Your task to perform on an android device: toggle show notifications on the lock screen Image 0: 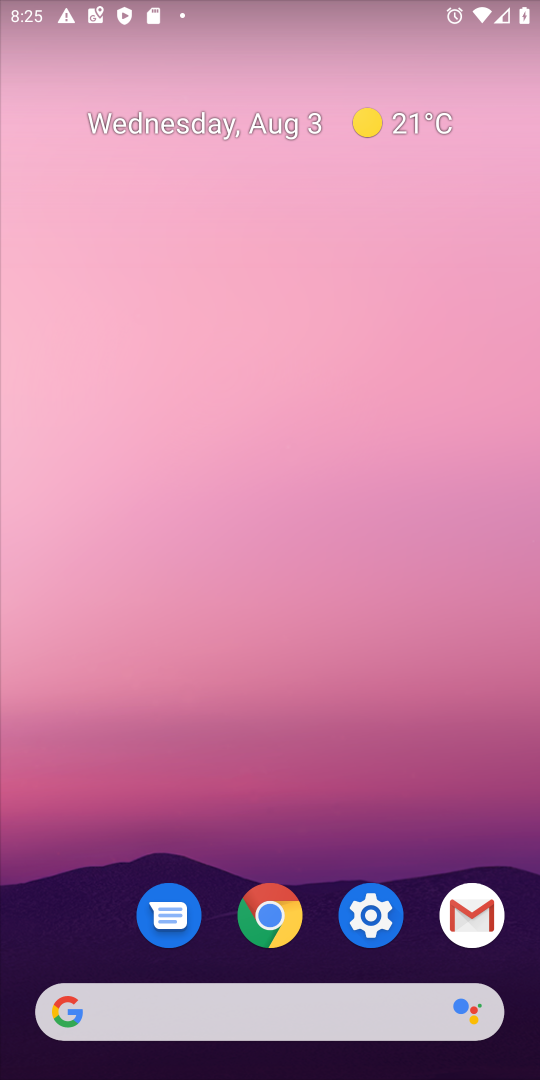
Step 0: press home button
Your task to perform on an android device: toggle show notifications on the lock screen Image 1: 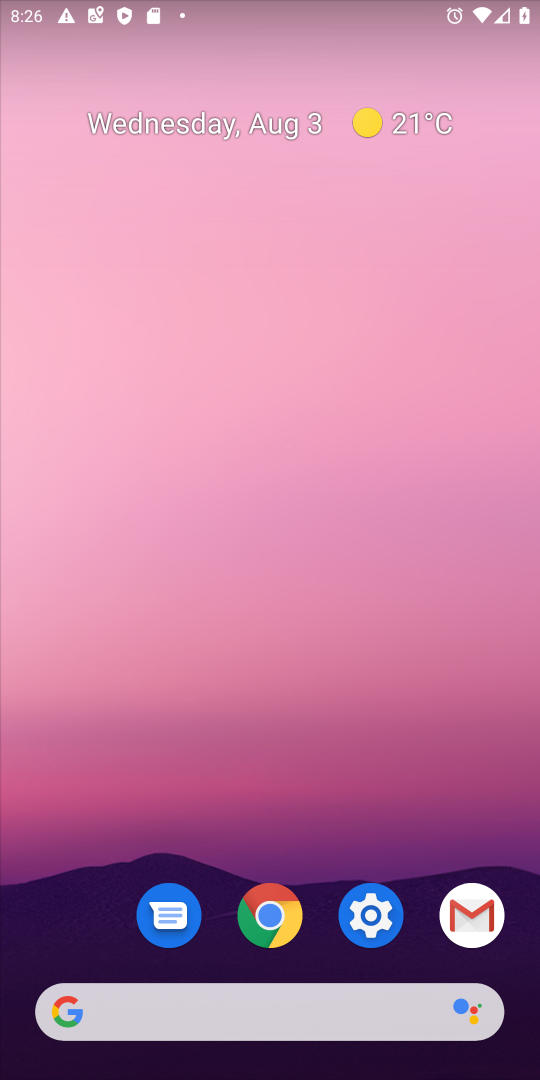
Step 1: drag from (358, 937) to (390, 246)
Your task to perform on an android device: toggle show notifications on the lock screen Image 2: 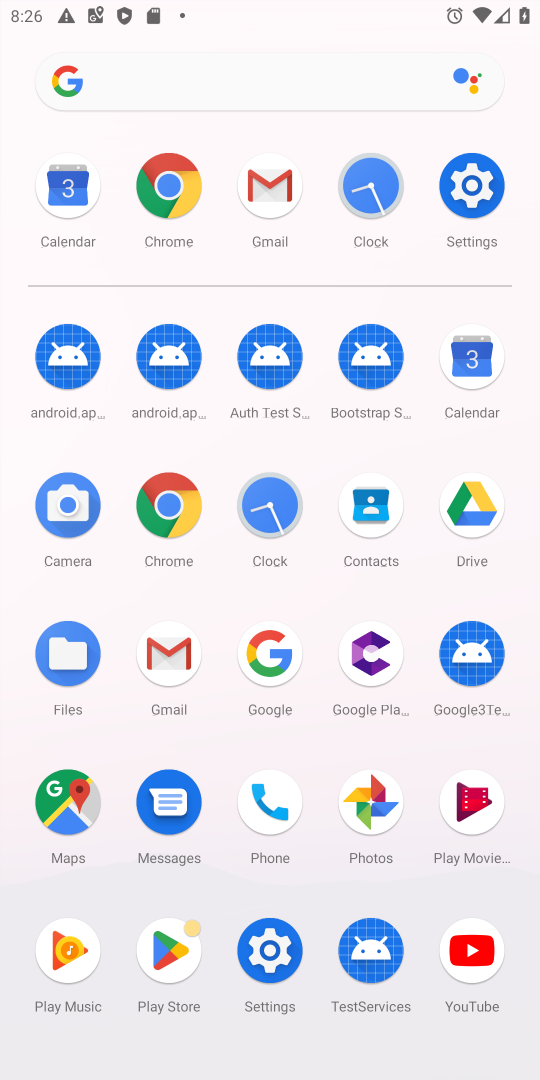
Step 2: click (487, 179)
Your task to perform on an android device: toggle show notifications on the lock screen Image 3: 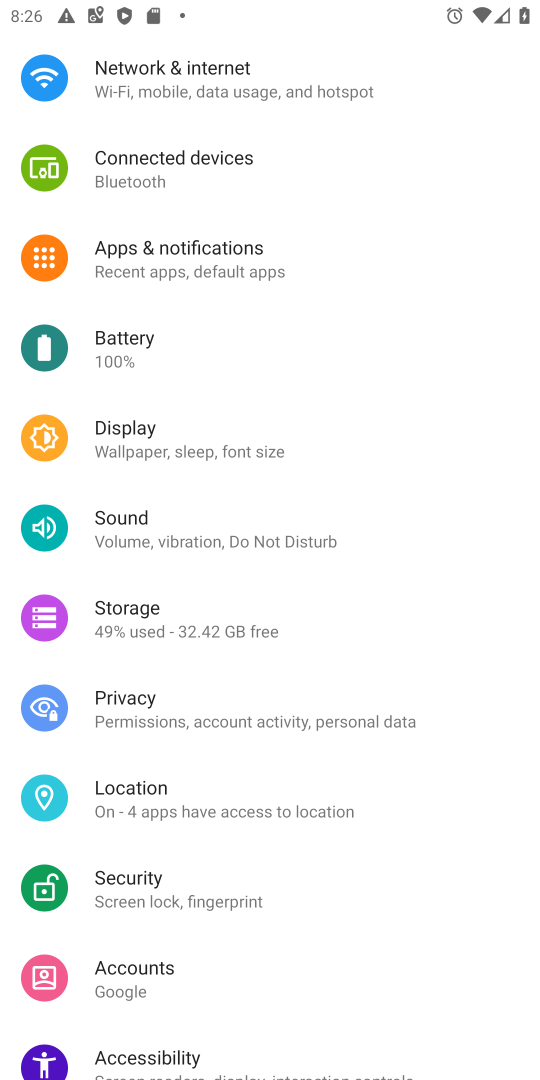
Step 3: drag from (171, 177) to (186, 361)
Your task to perform on an android device: toggle show notifications on the lock screen Image 4: 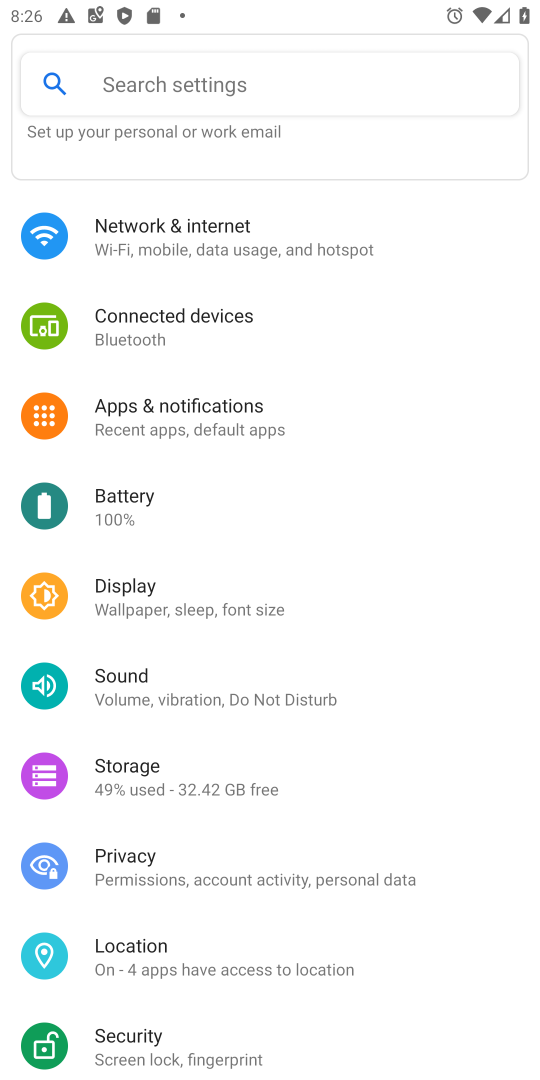
Step 4: click (178, 99)
Your task to perform on an android device: toggle show notifications on the lock screen Image 5: 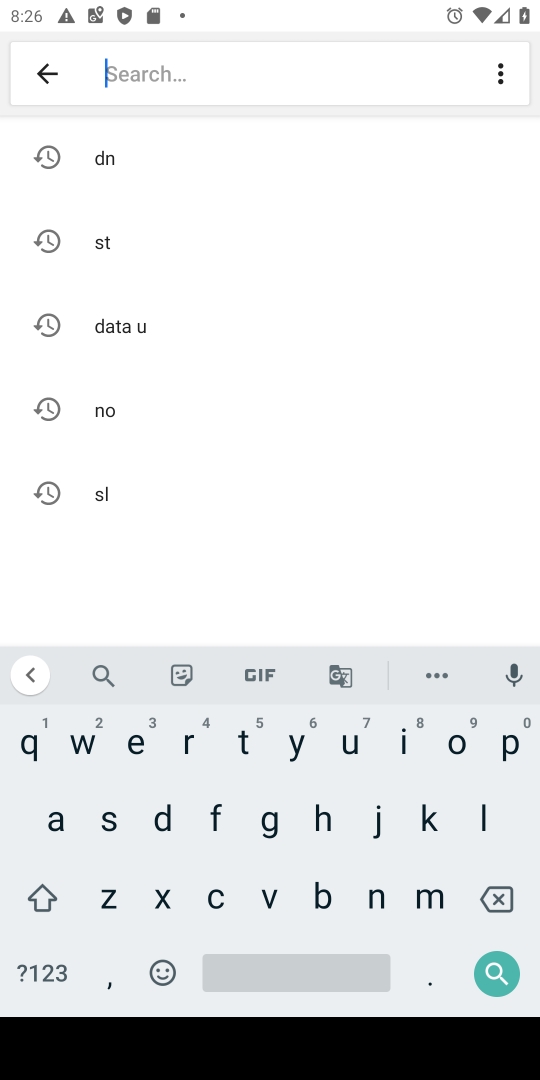
Step 5: click (382, 886)
Your task to perform on an android device: toggle show notifications on the lock screen Image 6: 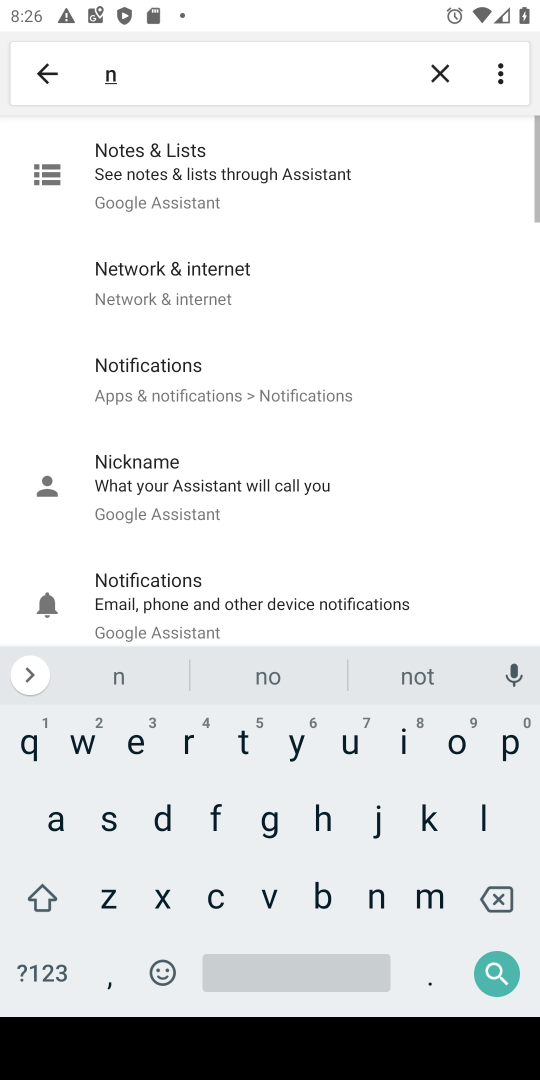
Step 6: click (459, 737)
Your task to perform on an android device: toggle show notifications on the lock screen Image 7: 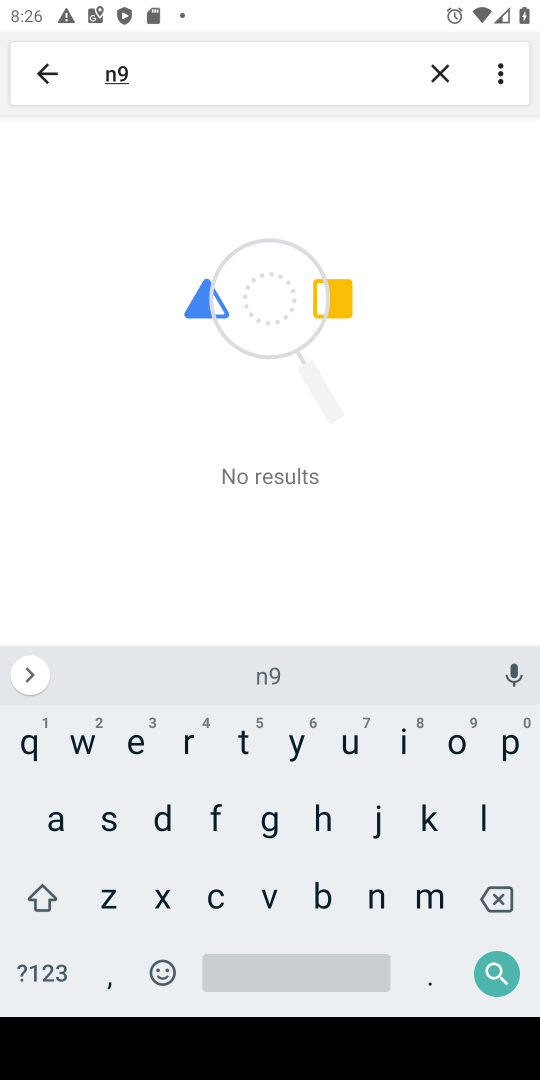
Step 7: click (497, 902)
Your task to perform on an android device: toggle show notifications on the lock screen Image 8: 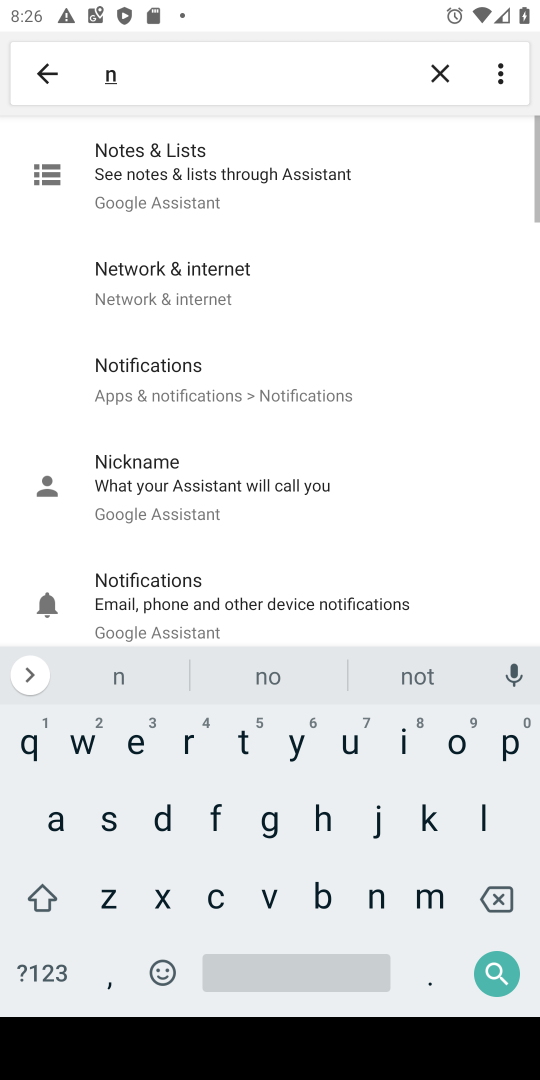
Step 8: click (455, 753)
Your task to perform on an android device: toggle show notifications on the lock screen Image 9: 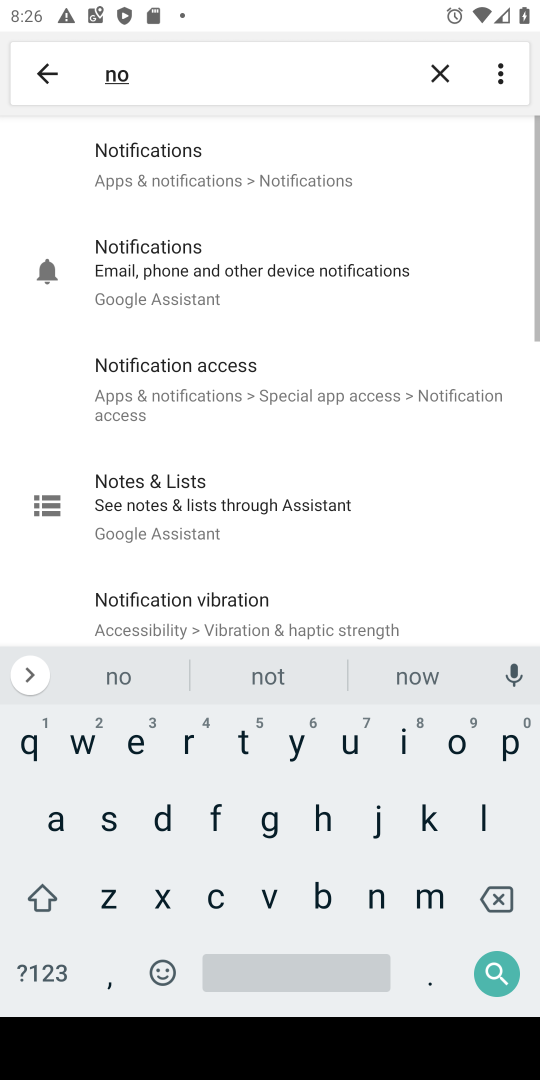
Step 9: click (195, 167)
Your task to perform on an android device: toggle show notifications on the lock screen Image 10: 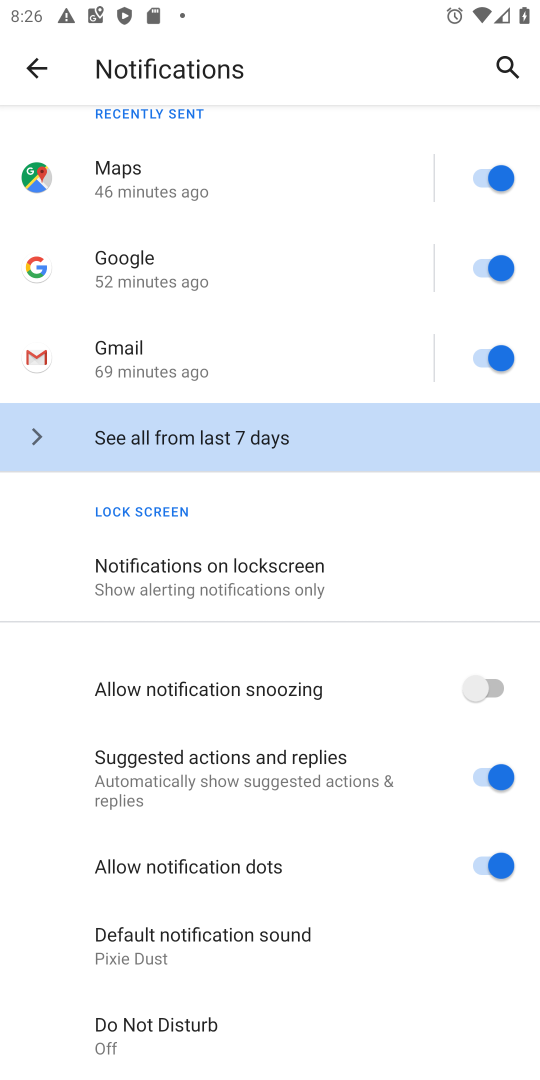
Step 10: click (213, 557)
Your task to perform on an android device: toggle show notifications on the lock screen Image 11: 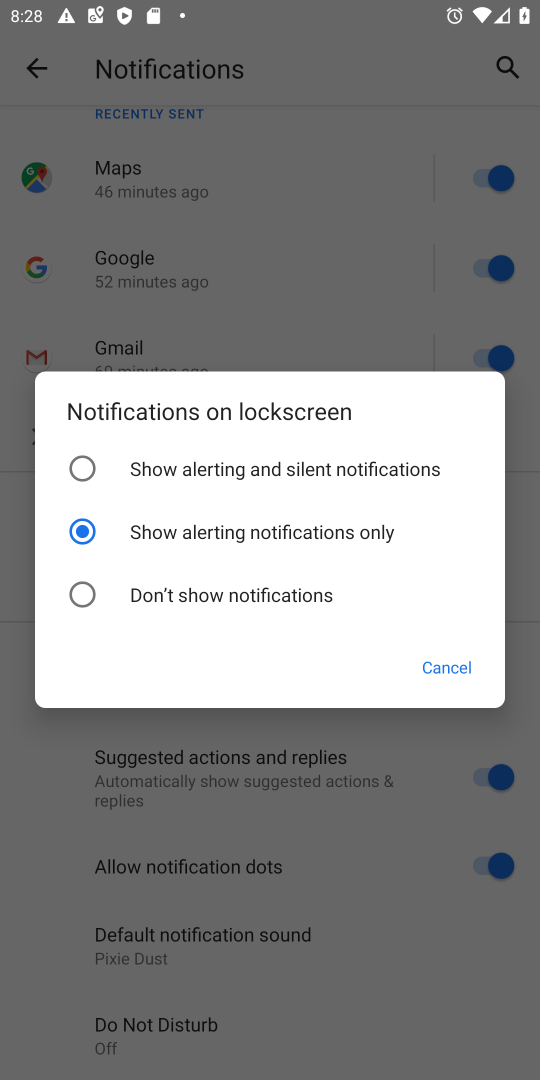
Step 11: task complete